Your task to perform on an android device: turn off wifi Image 0: 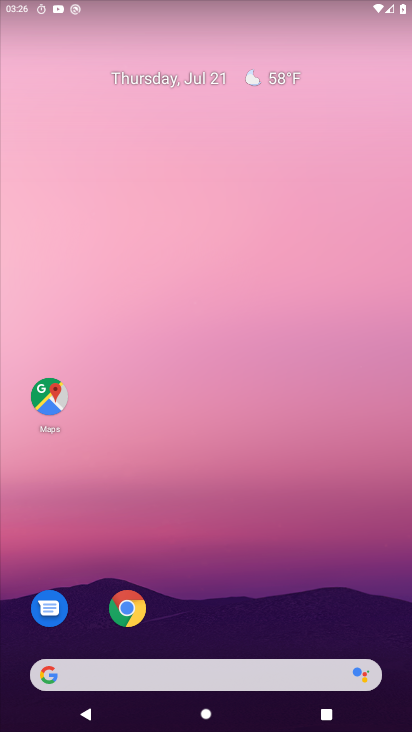
Step 0: drag from (223, 597) to (204, 190)
Your task to perform on an android device: turn off wifi Image 1: 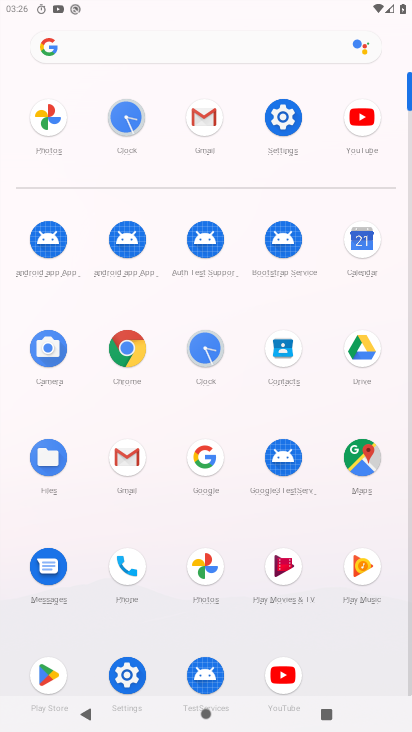
Step 1: drag from (207, 1) to (230, 402)
Your task to perform on an android device: turn off wifi Image 2: 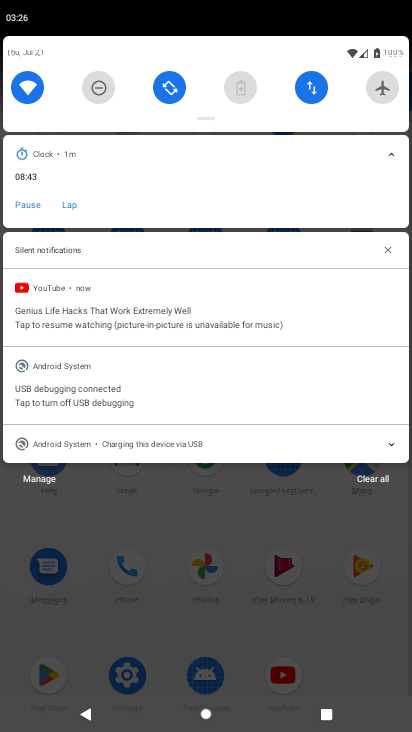
Step 2: click (31, 87)
Your task to perform on an android device: turn off wifi Image 3: 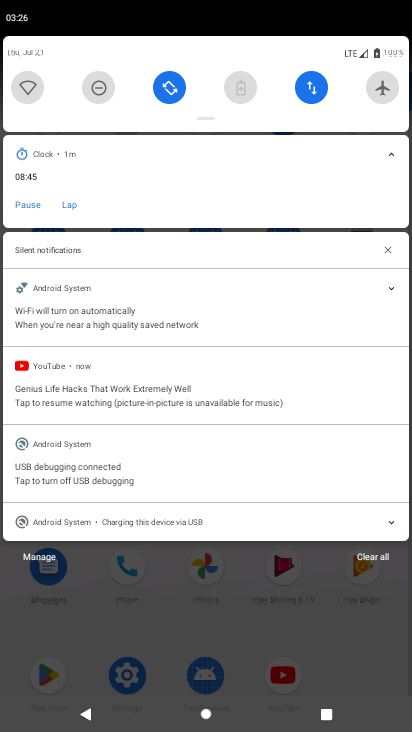
Step 3: task complete